Your task to perform on an android device: turn on notifications settings in the gmail app Image 0: 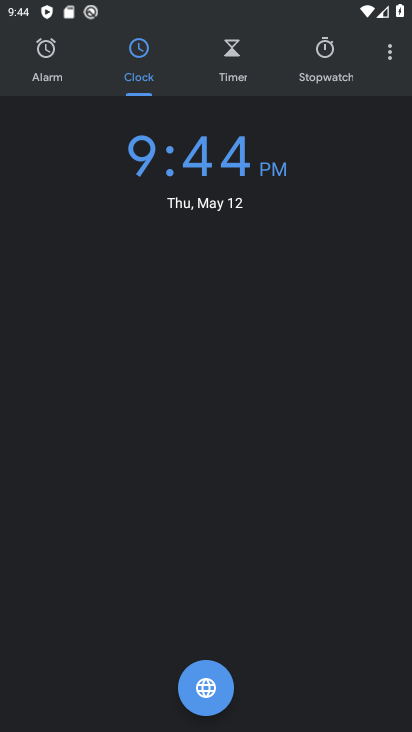
Step 0: press home button
Your task to perform on an android device: turn on notifications settings in the gmail app Image 1: 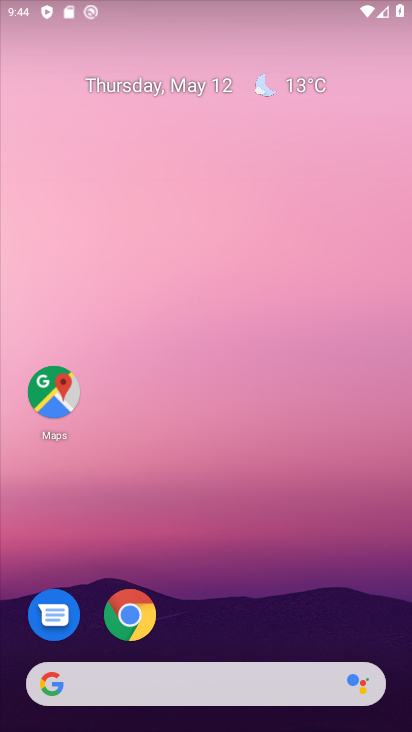
Step 1: drag from (295, 515) to (279, 17)
Your task to perform on an android device: turn on notifications settings in the gmail app Image 2: 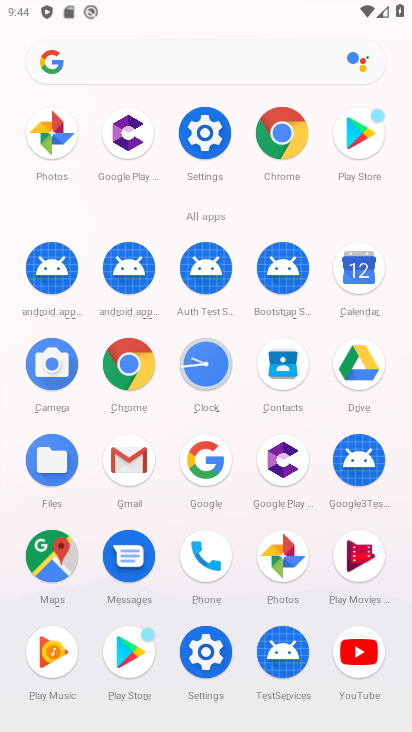
Step 2: drag from (380, 625) to (382, 261)
Your task to perform on an android device: turn on notifications settings in the gmail app Image 3: 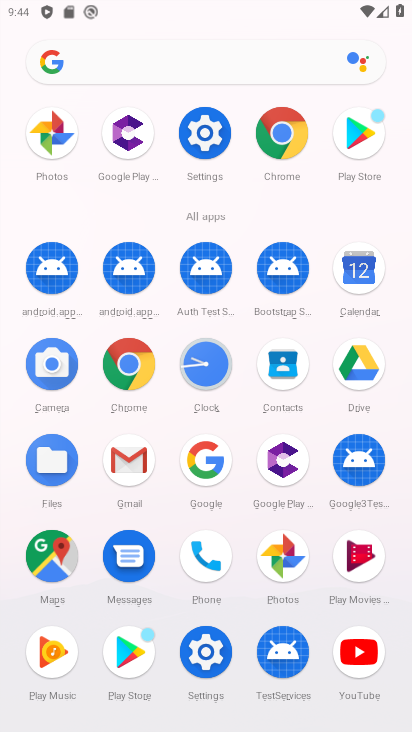
Step 3: click (129, 462)
Your task to perform on an android device: turn on notifications settings in the gmail app Image 4: 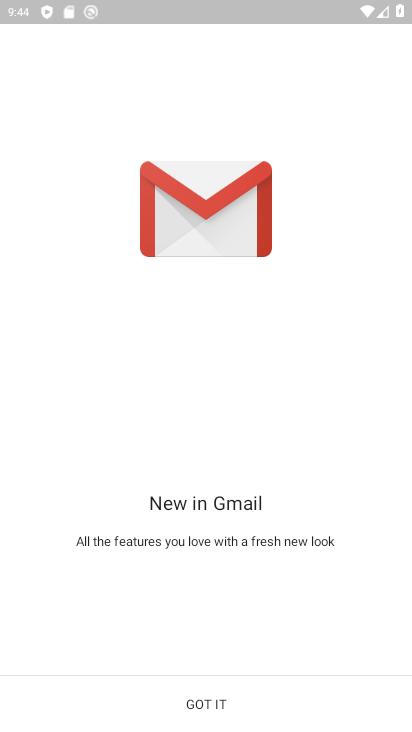
Step 4: click (226, 697)
Your task to perform on an android device: turn on notifications settings in the gmail app Image 5: 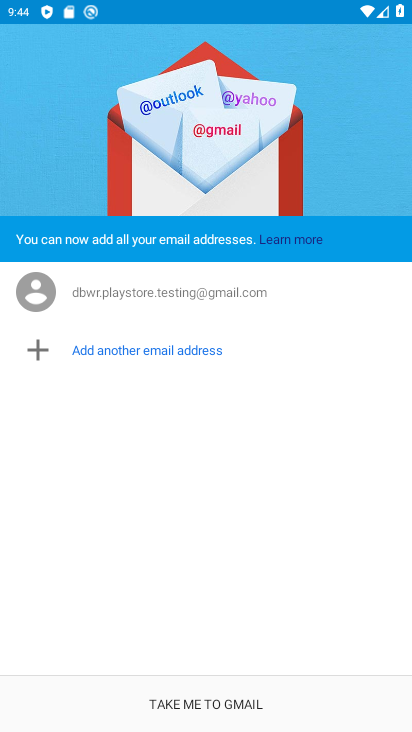
Step 5: click (214, 706)
Your task to perform on an android device: turn on notifications settings in the gmail app Image 6: 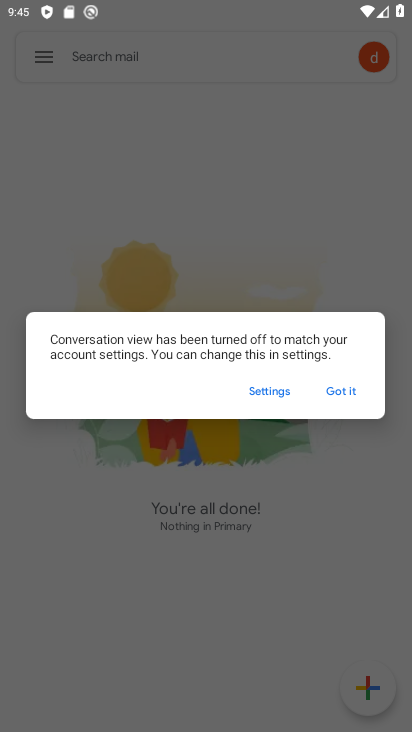
Step 6: click (342, 386)
Your task to perform on an android device: turn on notifications settings in the gmail app Image 7: 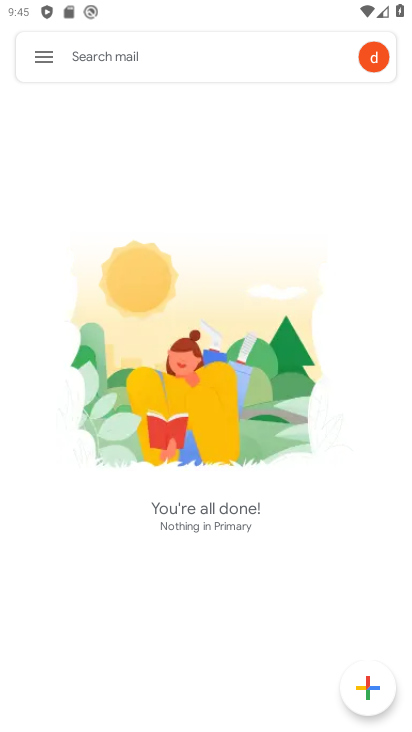
Step 7: click (38, 63)
Your task to perform on an android device: turn on notifications settings in the gmail app Image 8: 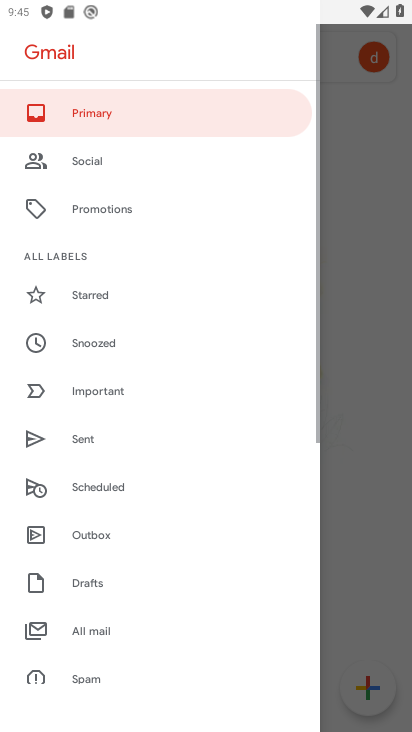
Step 8: drag from (140, 628) to (174, 196)
Your task to perform on an android device: turn on notifications settings in the gmail app Image 9: 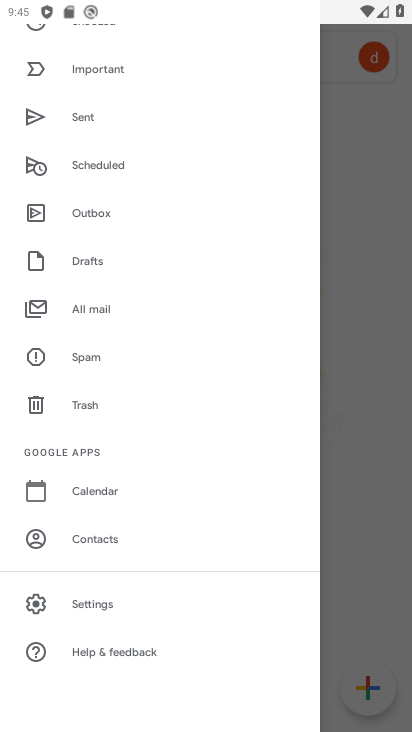
Step 9: click (80, 599)
Your task to perform on an android device: turn on notifications settings in the gmail app Image 10: 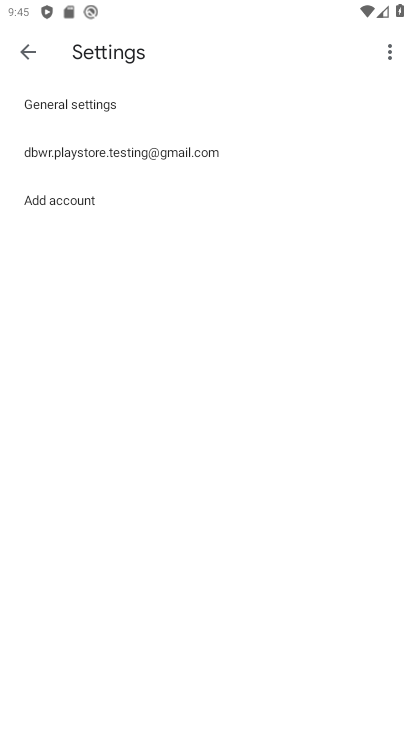
Step 10: click (186, 161)
Your task to perform on an android device: turn on notifications settings in the gmail app Image 11: 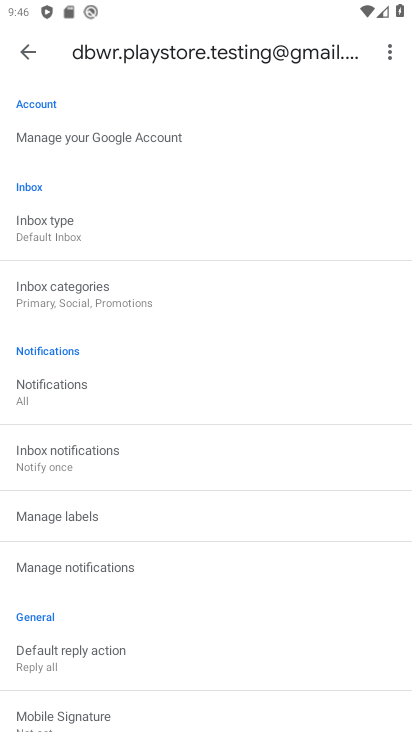
Step 11: drag from (113, 227) to (142, 530)
Your task to perform on an android device: turn on notifications settings in the gmail app Image 12: 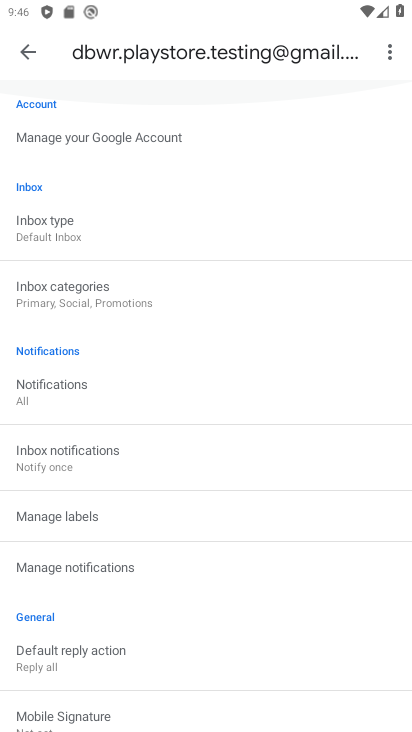
Step 12: click (63, 396)
Your task to perform on an android device: turn on notifications settings in the gmail app Image 13: 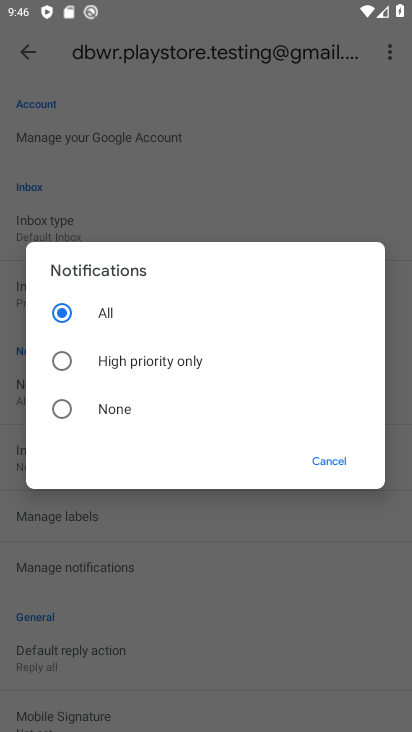
Step 13: task complete